Your task to perform on an android device: turn off javascript in the chrome app Image 0: 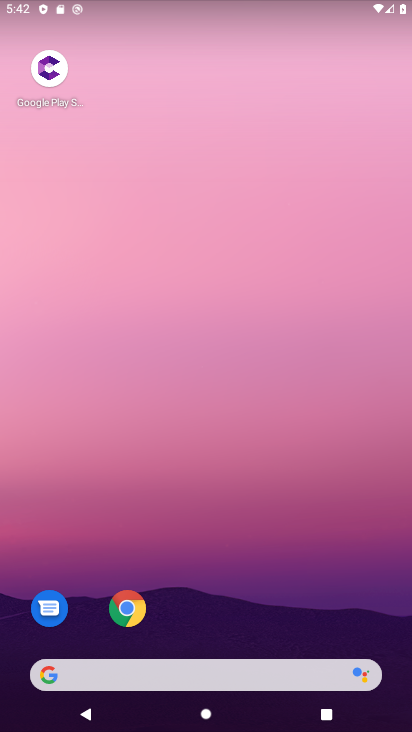
Step 0: click (127, 609)
Your task to perform on an android device: turn off javascript in the chrome app Image 1: 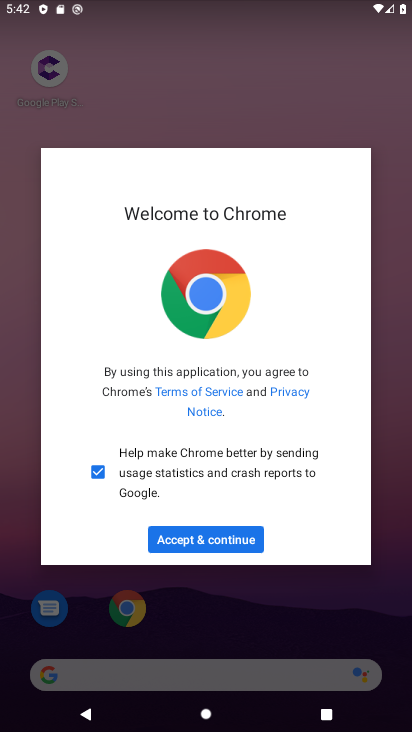
Step 1: click (205, 541)
Your task to perform on an android device: turn off javascript in the chrome app Image 2: 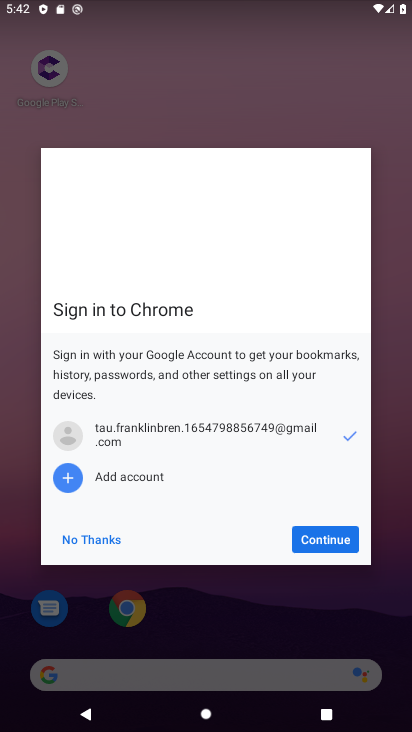
Step 2: click (320, 538)
Your task to perform on an android device: turn off javascript in the chrome app Image 3: 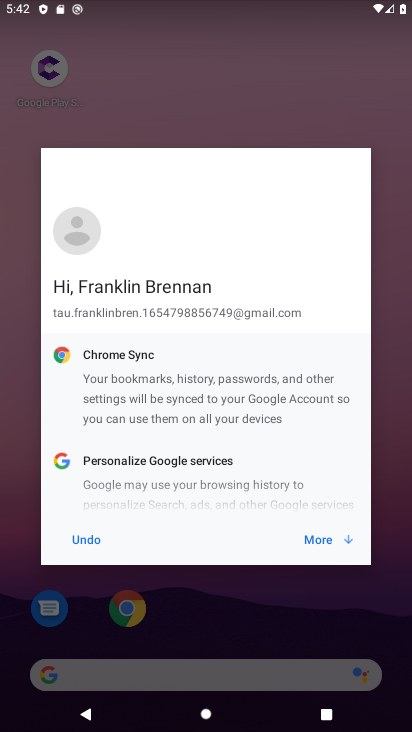
Step 3: click (320, 538)
Your task to perform on an android device: turn off javascript in the chrome app Image 4: 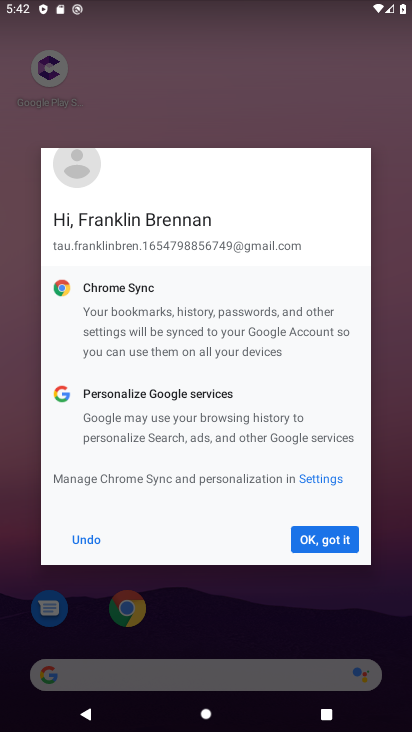
Step 4: click (320, 538)
Your task to perform on an android device: turn off javascript in the chrome app Image 5: 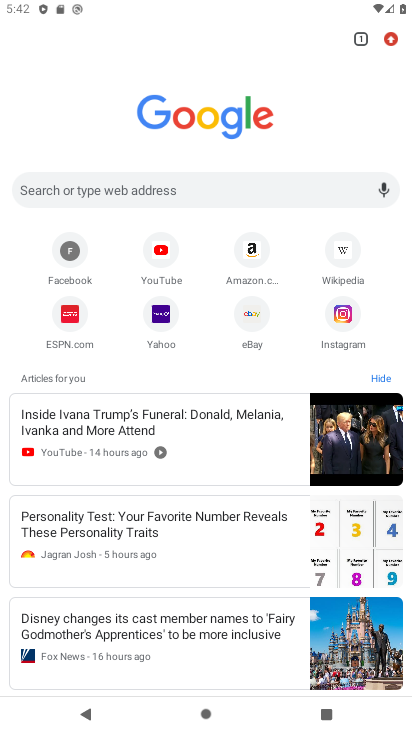
Step 5: click (392, 39)
Your task to perform on an android device: turn off javascript in the chrome app Image 6: 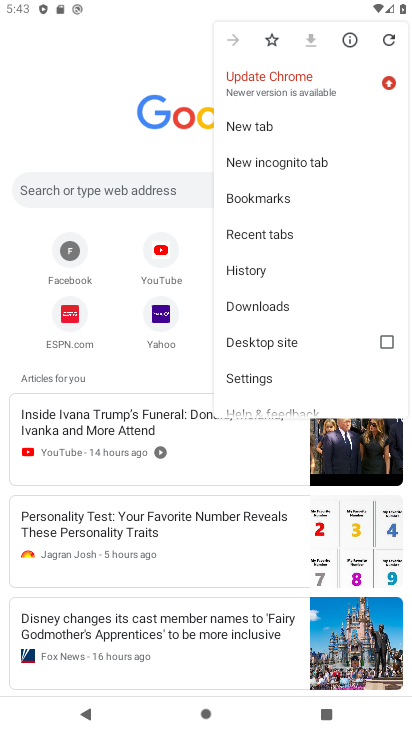
Step 6: click (257, 377)
Your task to perform on an android device: turn off javascript in the chrome app Image 7: 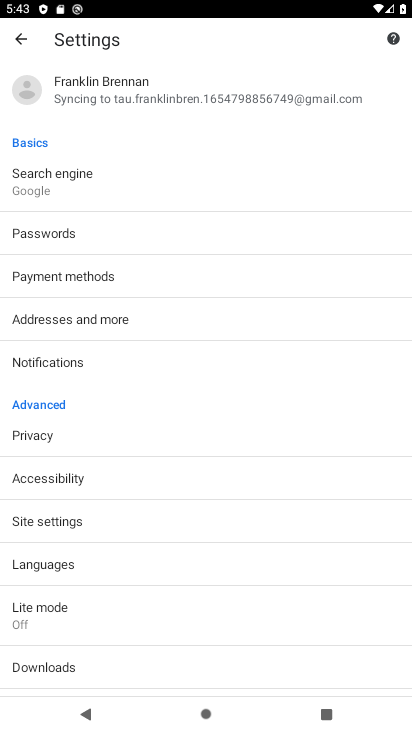
Step 7: click (47, 518)
Your task to perform on an android device: turn off javascript in the chrome app Image 8: 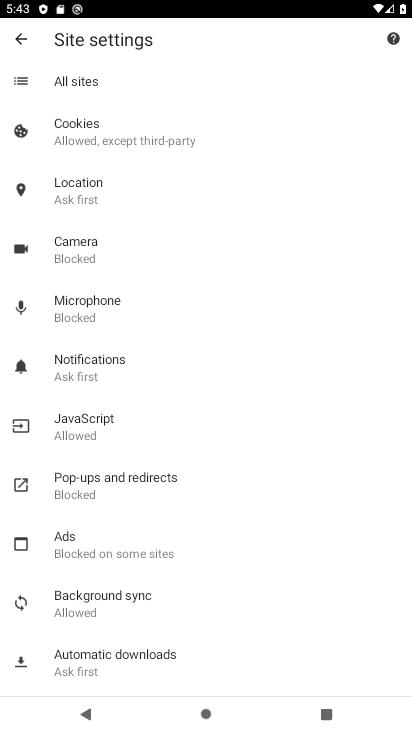
Step 8: click (90, 429)
Your task to perform on an android device: turn off javascript in the chrome app Image 9: 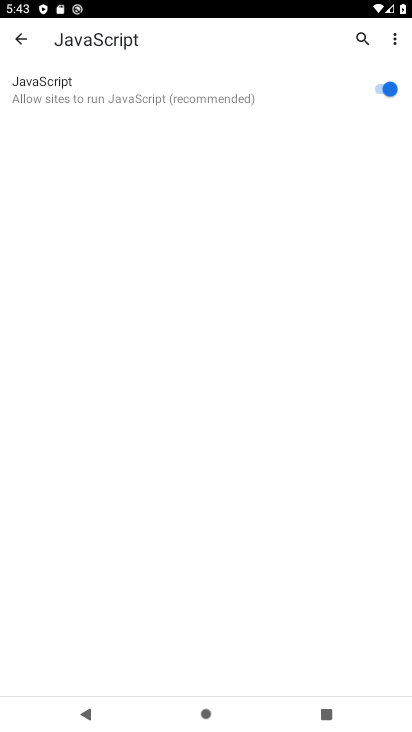
Step 9: click (383, 86)
Your task to perform on an android device: turn off javascript in the chrome app Image 10: 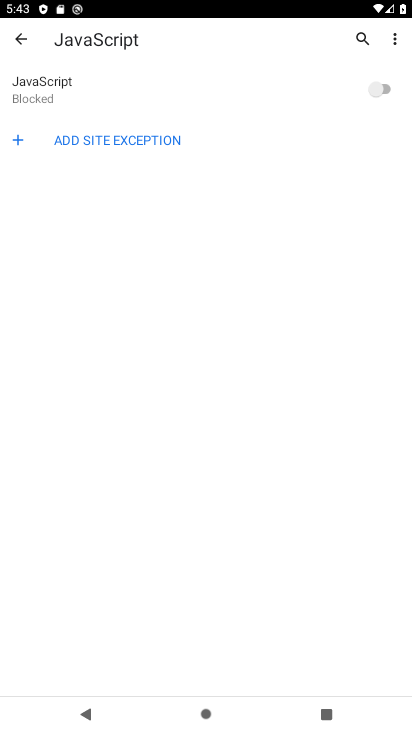
Step 10: task complete